Your task to perform on an android device: set default search engine in the chrome app Image 0: 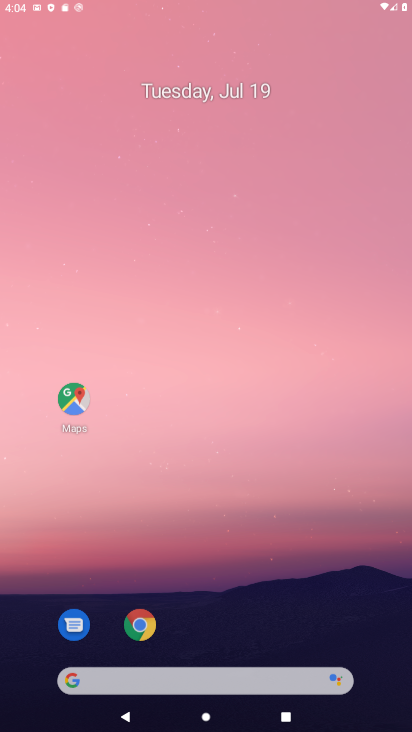
Step 0: click (24, 54)
Your task to perform on an android device: set default search engine in the chrome app Image 1: 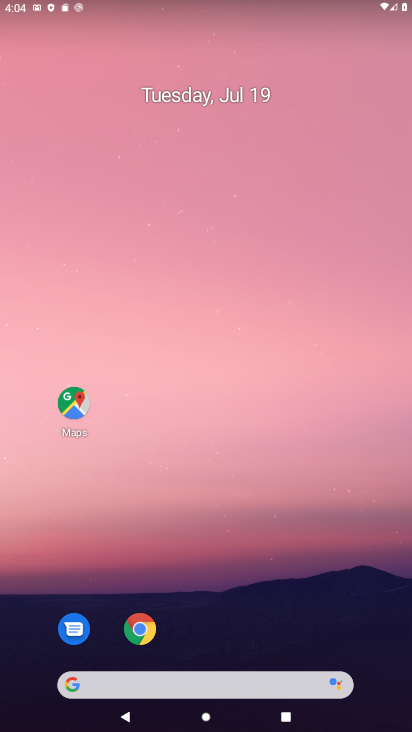
Step 1: drag from (166, 675) to (103, 89)
Your task to perform on an android device: set default search engine in the chrome app Image 2: 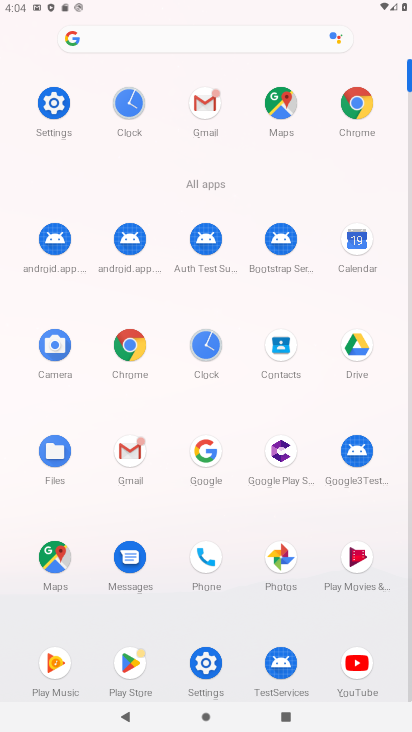
Step 2: click (362, 107)
Your task to perform on an android device: set default search engine in the chrome app Image 3: 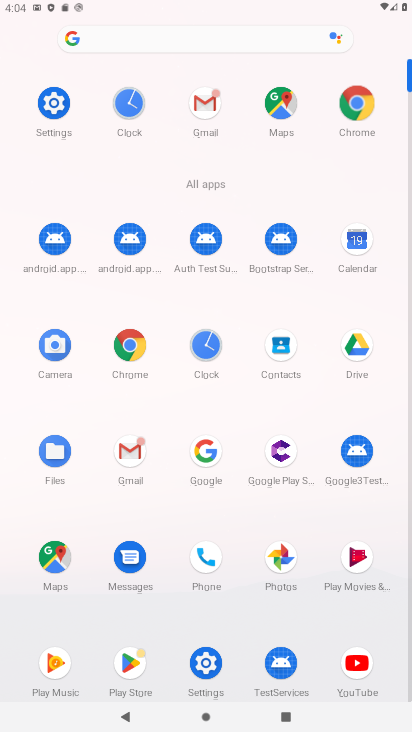
Step 3: click (359, 107)
Your task to perform on an android device: set default search engine in the chrome app Image 4: 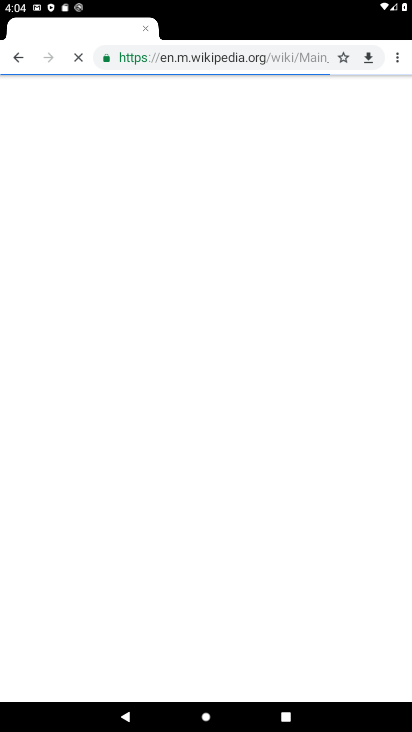
Step 4: drag from (394, 54) to (281, 365)
Your task to perform on an android device: set default search engine in the chrome app Image 5: 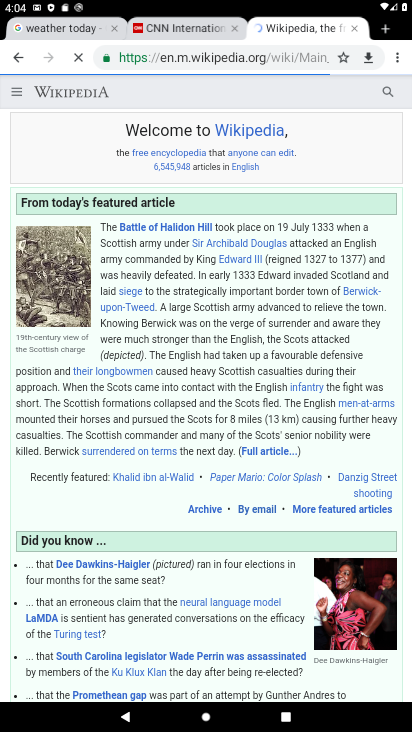
Step 5: drag from (396, 50) to (275, 375)
Your task to perform on an android device: set default search engine in the chrome app Image 6: 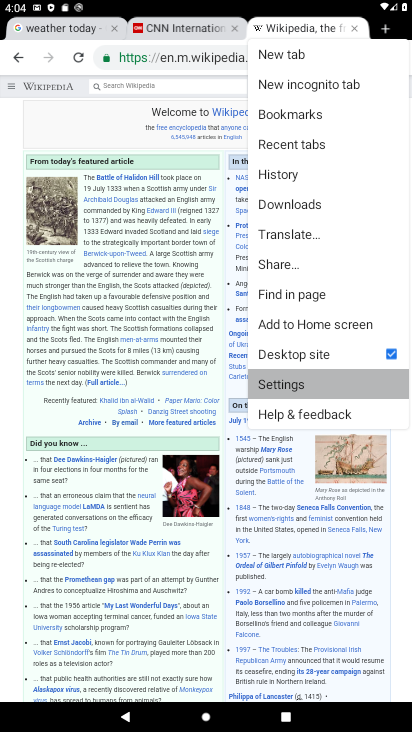
Step 6: click (273, 375)
Your task to perform on an android device: set default search engine in the chrome app Image 7: 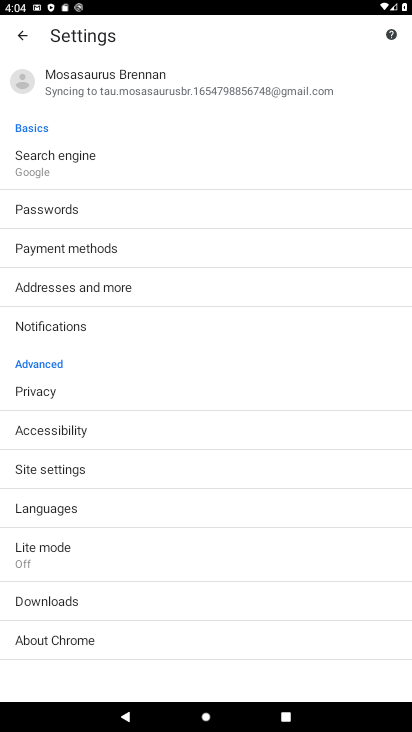
Step 7: click (50, 157)
Your task to perform on an android device: set default search engine in the chrome app Image 8: 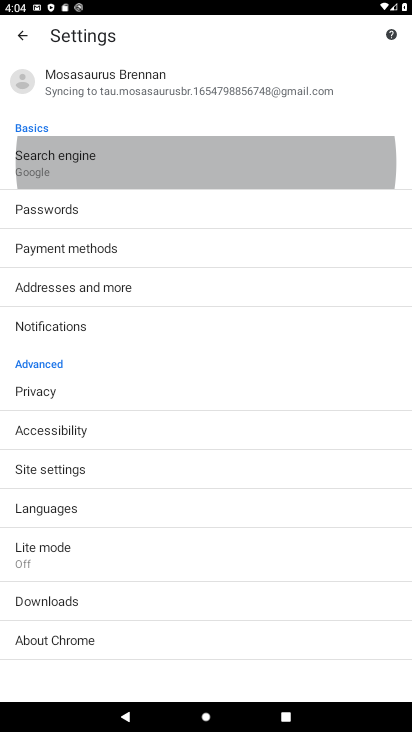
Step 8: click (53, 157)
Your task to perform on an android device: set default search engine in the chrome app Image 9: 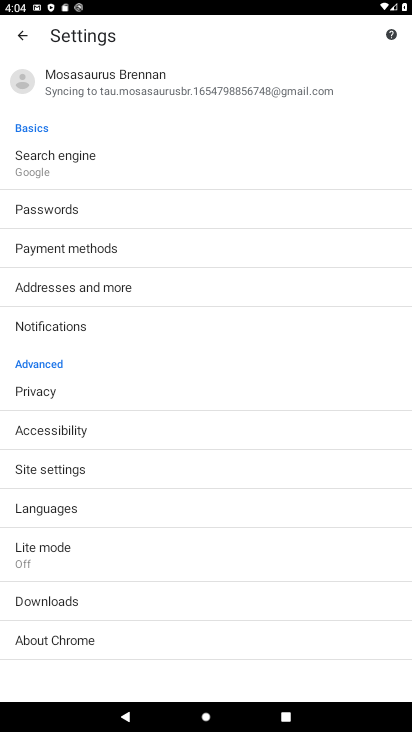
Step 9: click (53, 157)
Your task to perform on an android device: set default search engine in the chrome app Image 10: 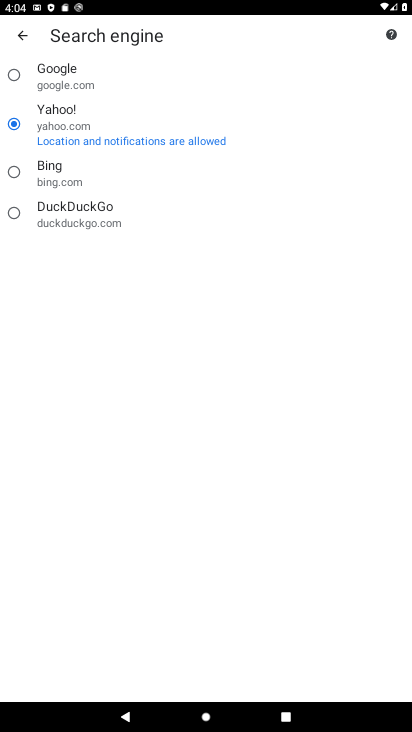
Step 10: task complete